Your task to perform on an android device: turn off wifi Image 0: 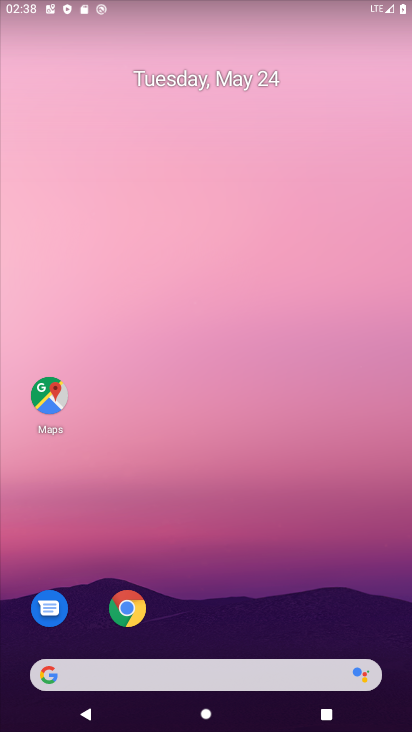
Step 0: drag from (246, 632) to (169, 309)
Your task to perform on an android device: turn off wifi Image 1: 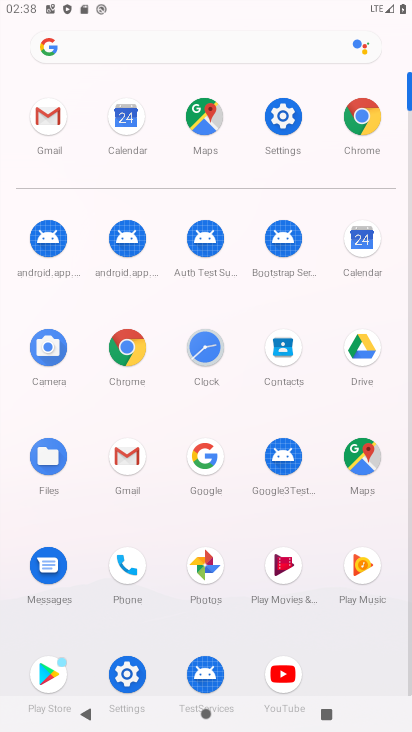
Step 1: click (289, 129)
Your task to perform on an android device: turn off wifi Image 2: 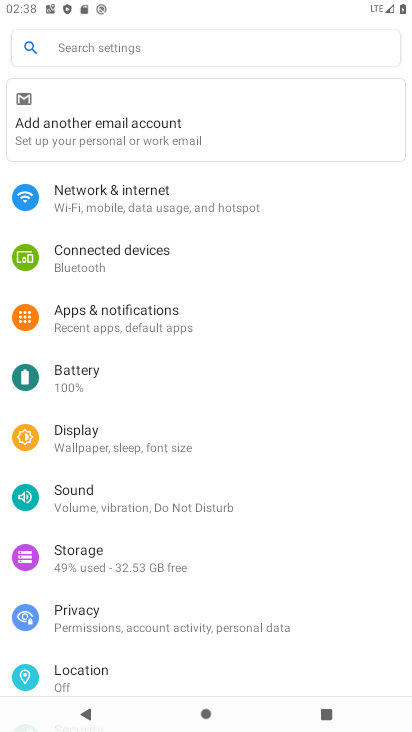
Step 2: click (236, 188)
Your task to perform on an android device: turn off wifi Image 3: 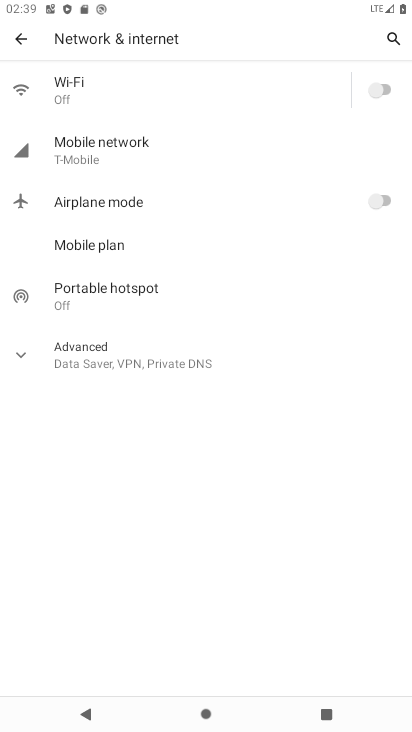
Step 3: task complete